Your task to perform on an android device: turn off notifications settings in the gmail app Image 0: 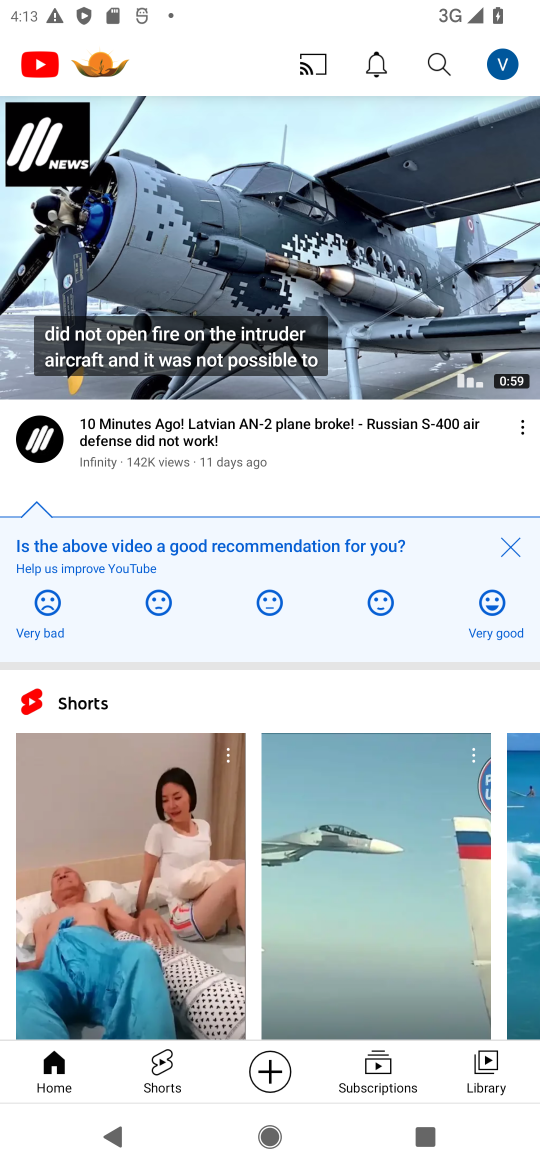
Step 0: press home button
Your task to perform on an android device: turn off notifications settings in the gmail app Image 1: 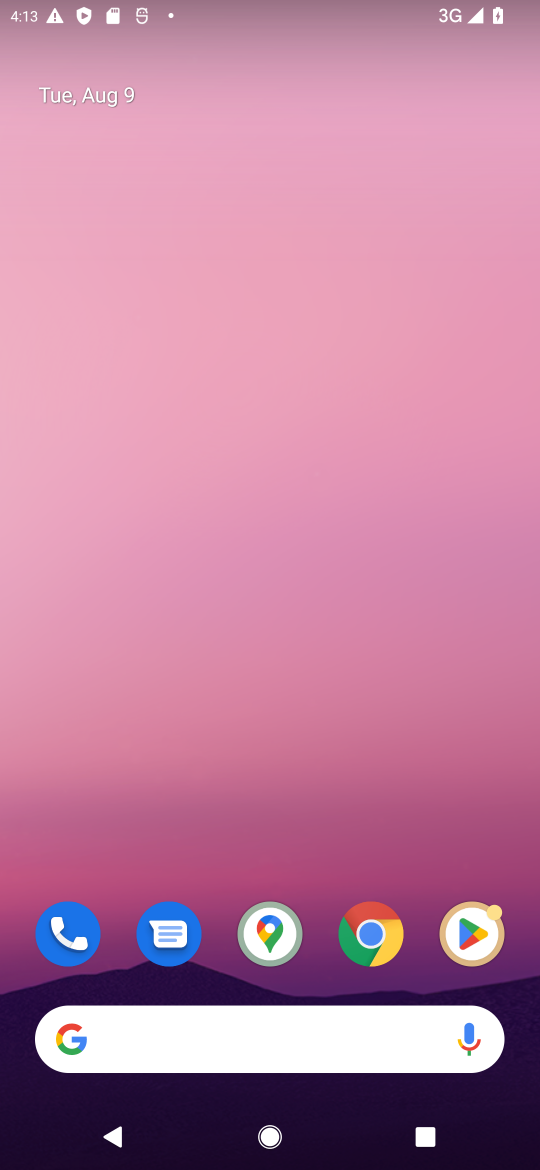
Step 1: drag from (323, 998) to (321, 127)
Your task to perform on an android device: turn off notifications settings in the gmail app Image 2: 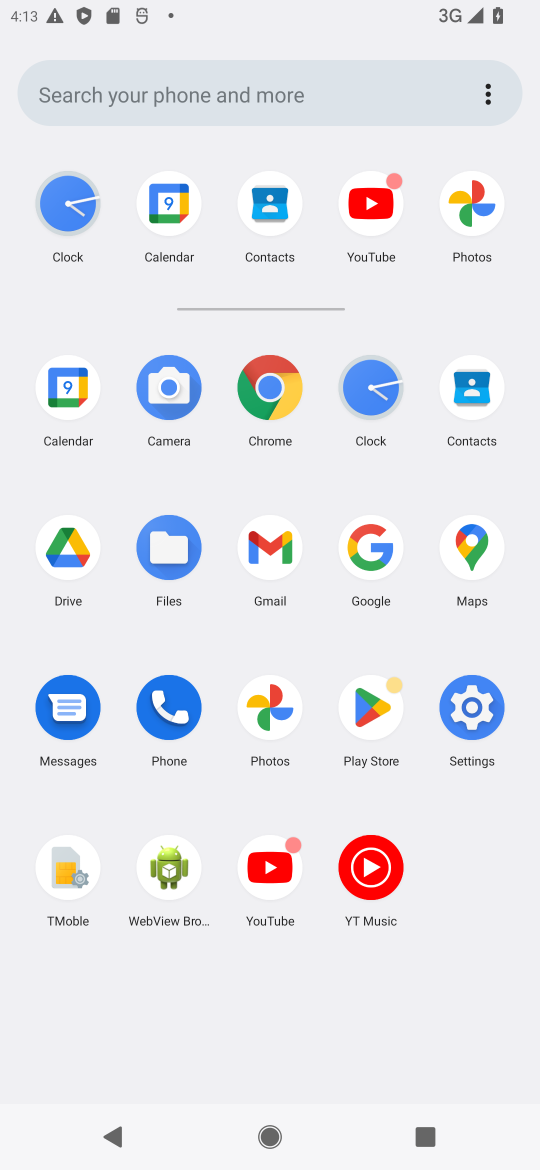
Step 2: click (290, 534)
Your task to perform on an android device: turn off notifications settings in the gmail app Image 3: 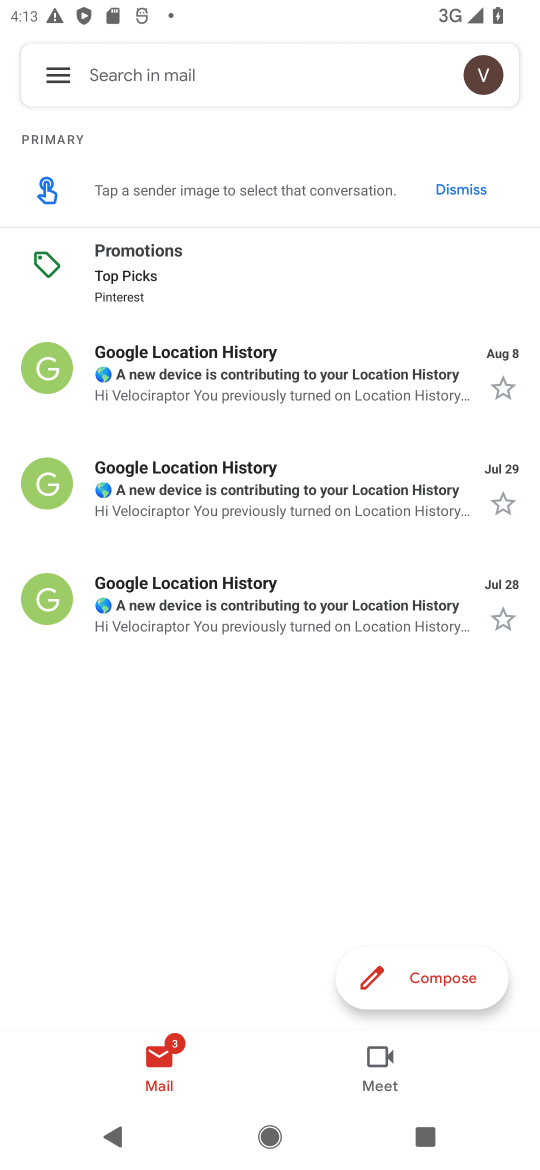
Step 3: task complete